Your task to perform on an android device: delete browsing data in the chrome app Image 0: 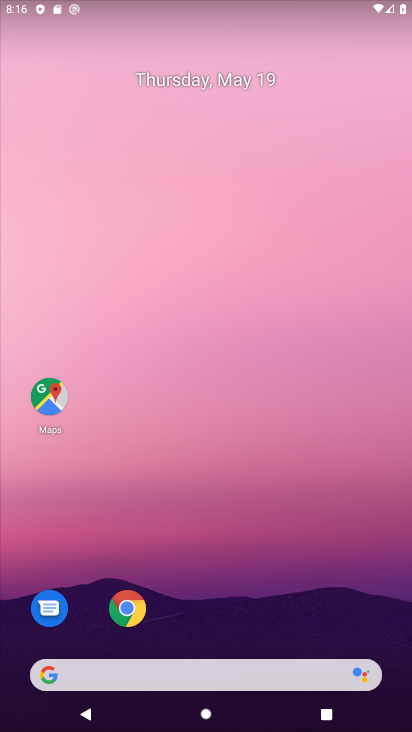
Step 0: drag from (288, 671) to (176, 50)
Your task to perform on an android device: delete browsing data in the chrome app Image 1: 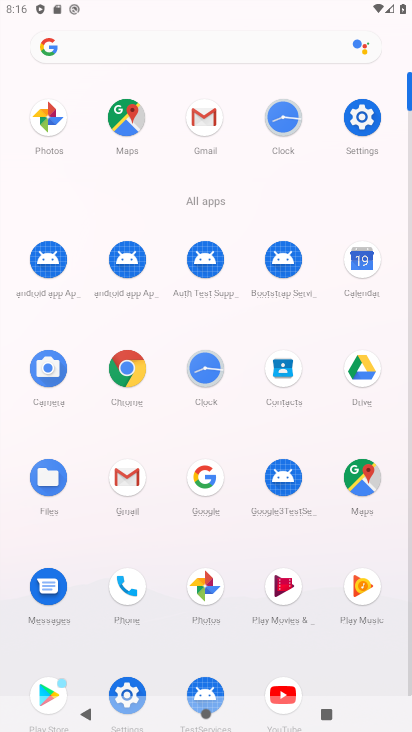
Step 1: click (121, 384)
Your task to perform on an android device: delete browsing data in the chrome app Image 2: 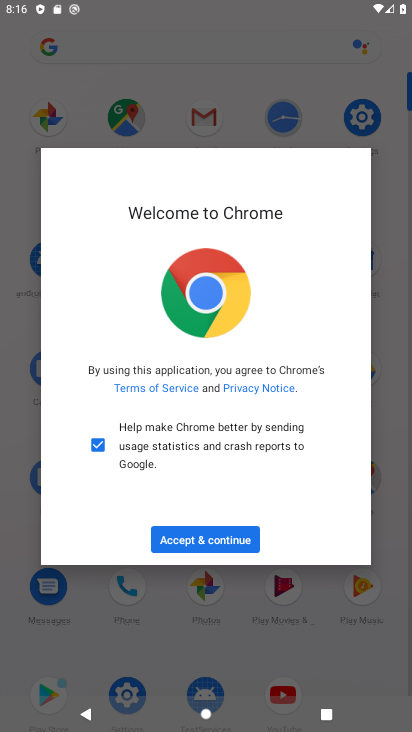
Step 2: click (219, 535)
Your task to perform on an android device: delete browsing data in the chrome app Image 3: 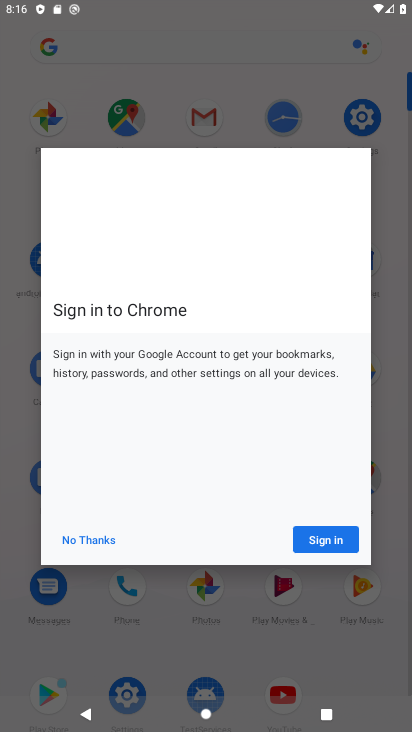
Step 3: click (219, 535)
Your task to perform on an android device: delete browsing data in the chrome app Image 4: 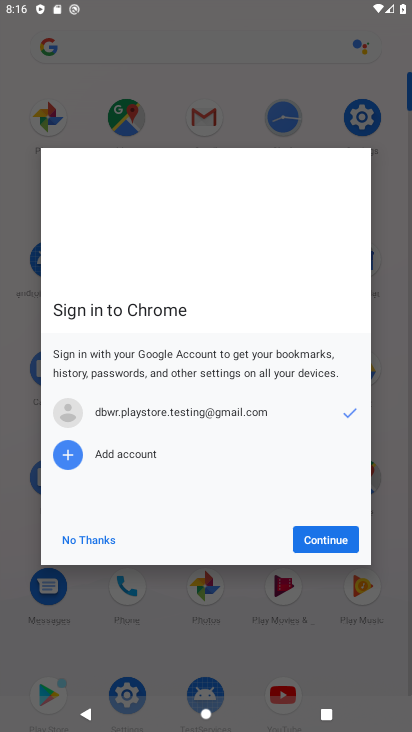
Step 4: click (219, 535)
Your task to perform on an android device: delete browsing data in the chrome app Image 5: 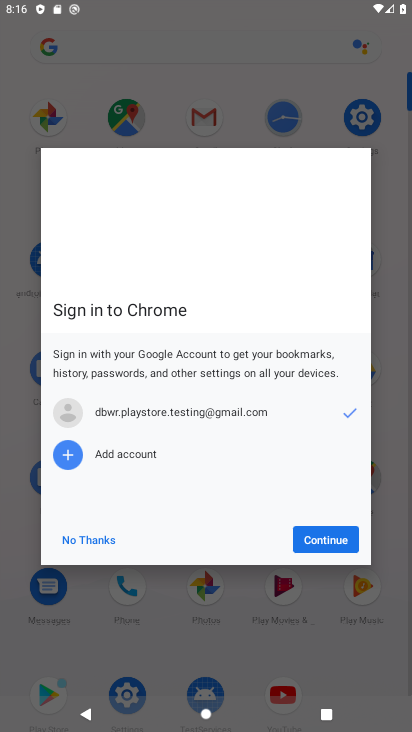
Step 5: click (340, 545)
Your task to perform on an android device: delete browsing data in the chrome app Image 6: 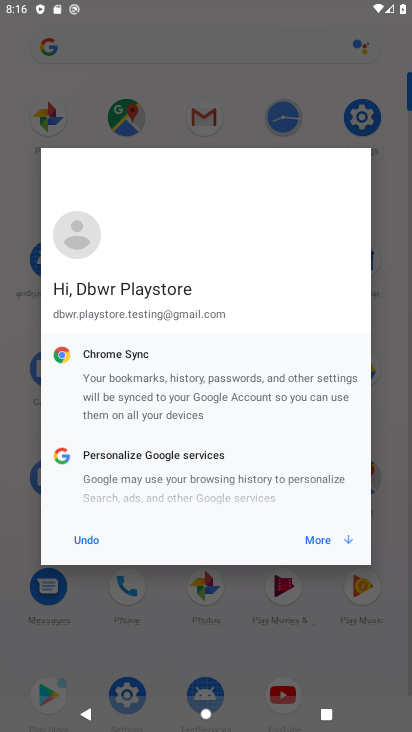
Step 6: click (331, 544)
Your task to perform on an android device: delete browsing data in the chrome app Image 7: 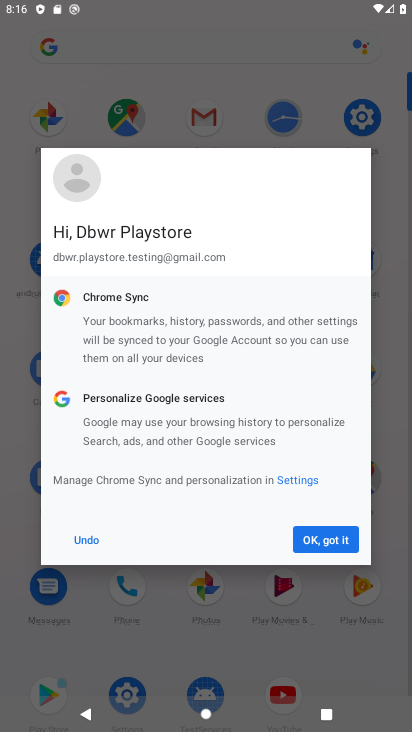
Step 7: click (331, 544)
Your task to perform on an android device: delete browsing data in the chrome app Image 8: 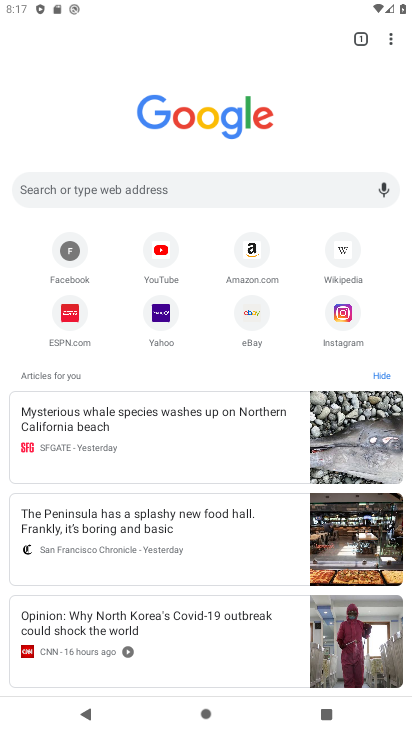
Step 8: drag from (382, 38) to (243, 223)
Your task to perform on an android device: delete browsing data in the chrome app Image 9: 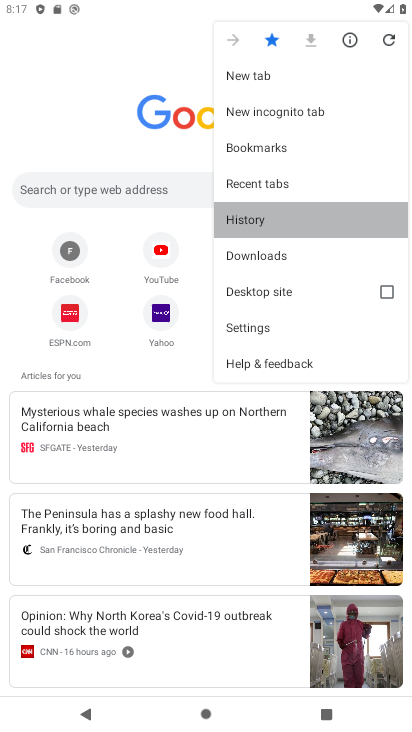
Step 9: click (243, 223)
Your task to perform on an android device: delete browsing data in the chrome app Image 10: 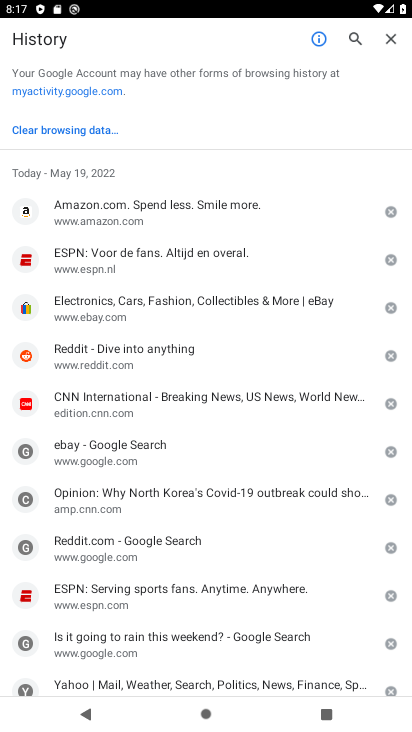
Step 10: click (384, 216)
Your task to perform on an android device: delete browsing data in the chrome app Image 11: 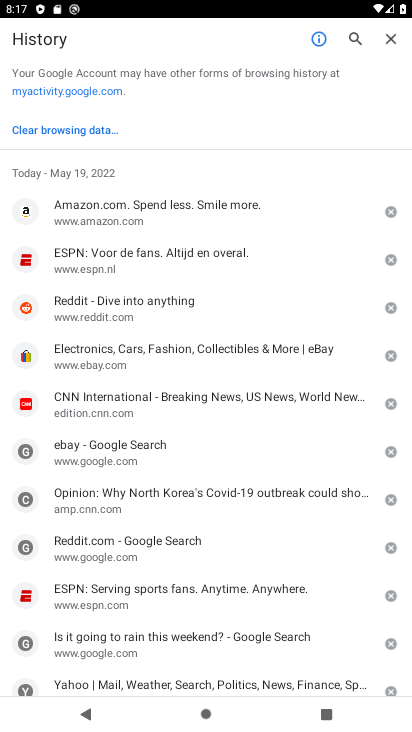
Step 11: click (387, 253)
Your task to perform on an android device: delete browsing data in the chrome app Image 12: 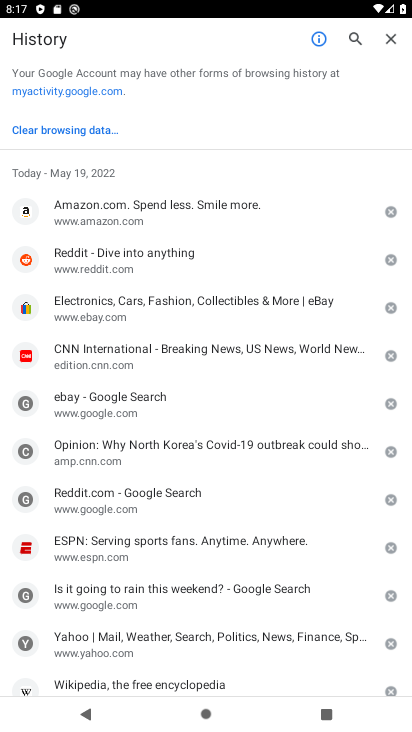
Step 12: task complete